Your task to perform on an android device: Show me the alarms in the clock app Image 0: 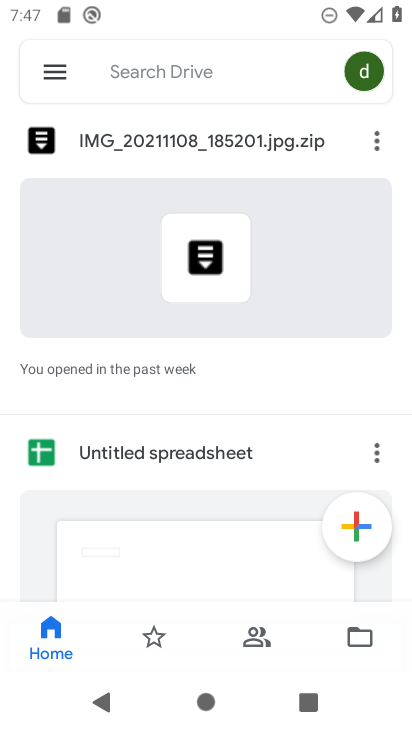
Step 0: press home button
Your task to perform on an android device: Show me the alarms in the clock app Image 1: 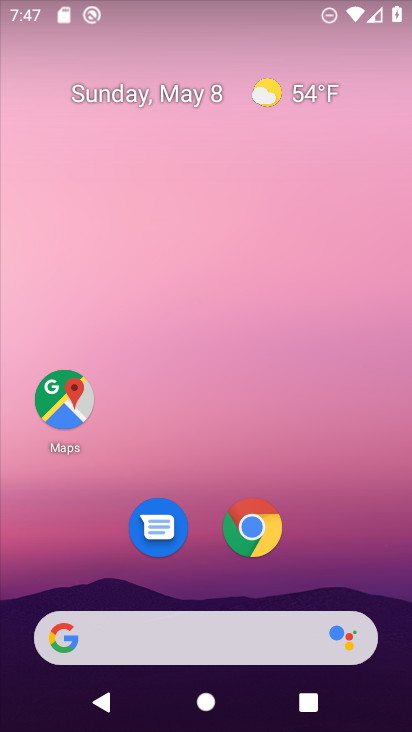
Step 1: drag from (361, 499) to (405, 134)
Your task to perform on an android device: Show me the alarms in the clock app Image 2: 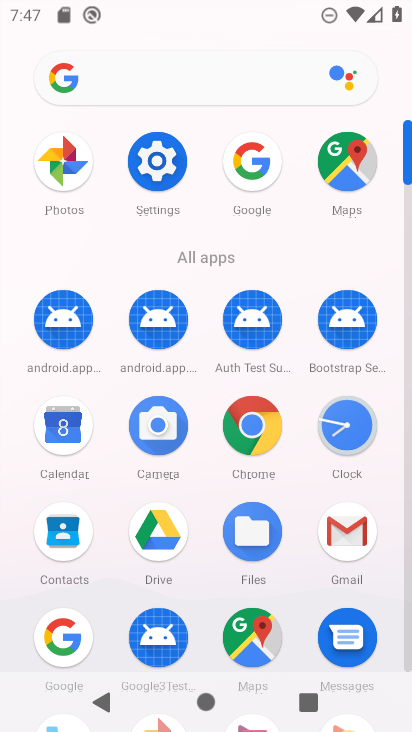
Step 2: click (359, 442)
Your task to perform on an android device: Show me the alarms in the clock app Image 3: 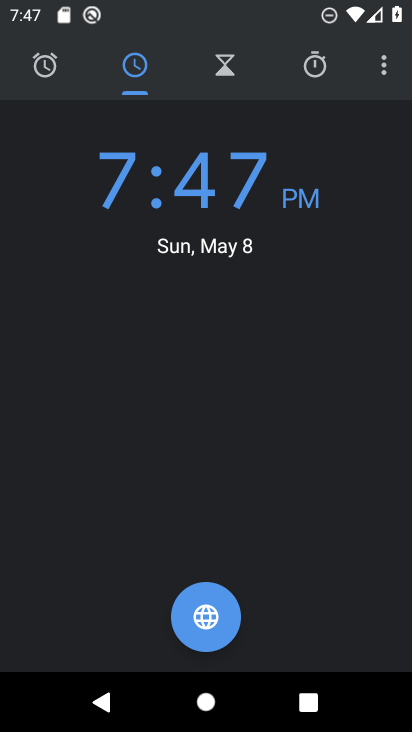
Step 3: click (50, 56)
Your task to perform on an android device: Show me the alarms in the clock app Image 4: 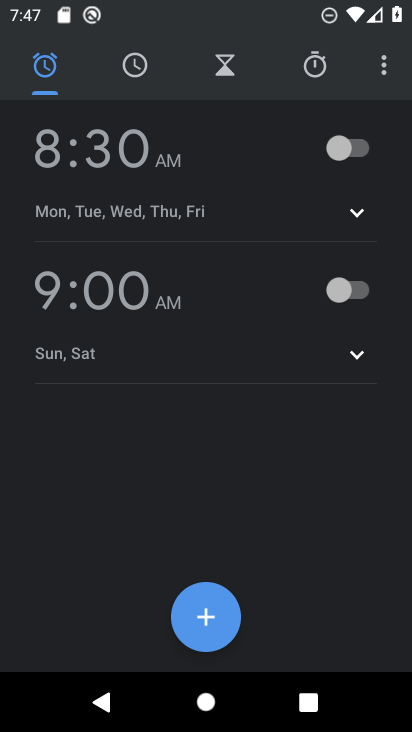
Step 4: task complete